Your task to perform on an android device: Search for pizza restaurants on Maps Image 0: 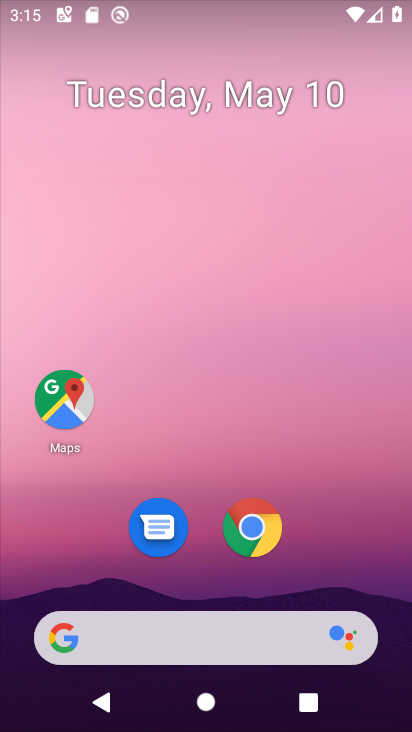
Step 0: click (46, 391)
Your task to perform on an android device: Search for pizza restaurants on Maps Image 1: 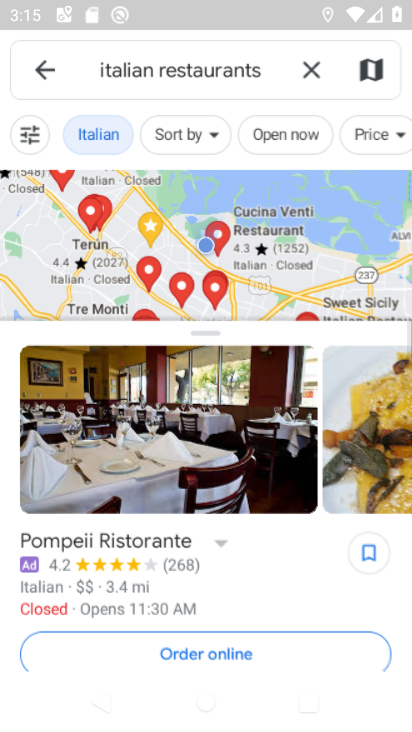
Step 1: click (313, 60)
Your task to perform on an android device: Search for pizza restaurants on Maps Image 2: 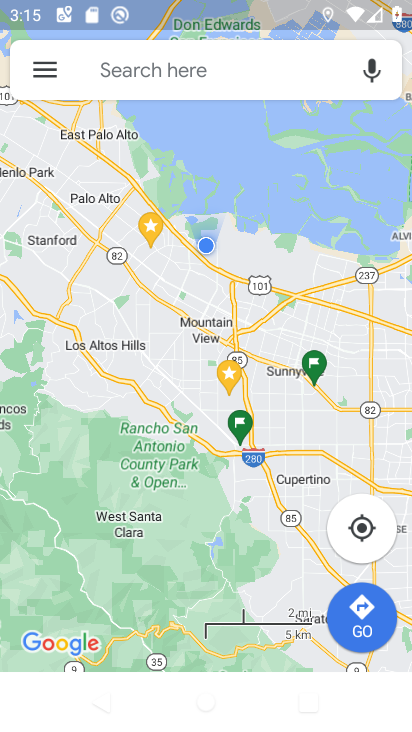
Step 2: click (121, 57)
Your task to perform on an android device: Search for pizza restaurants on Maps Image 3: 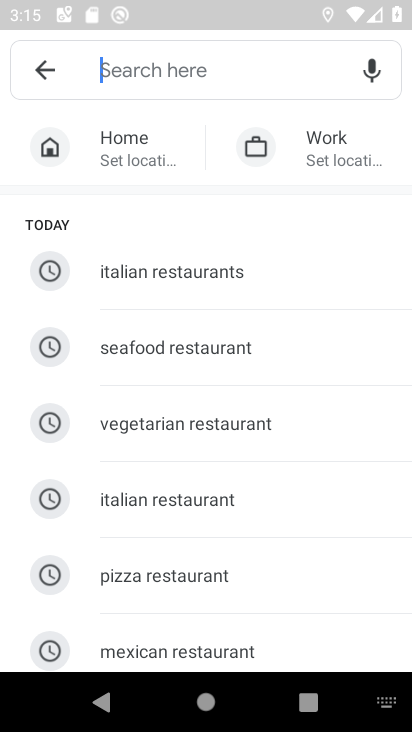
Step 3: type "pizza restaurants"
Your task to perform on an android device: Search for pizza restaurants on Maps Image 4: 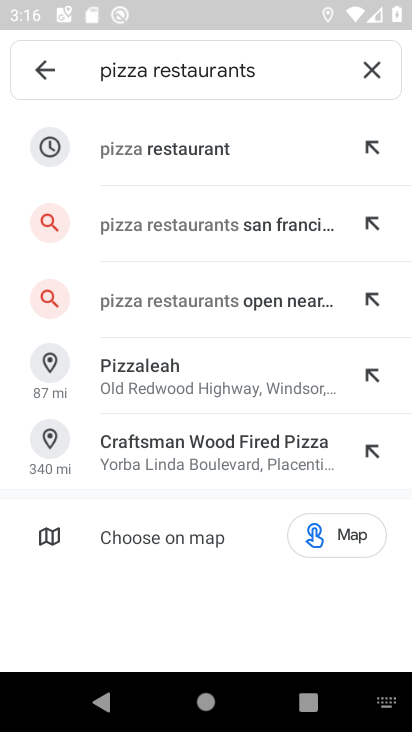
Step 4: click (170, 142)
Your task to perform on an android device: Search for pizza restaurants on Maps Image 5: 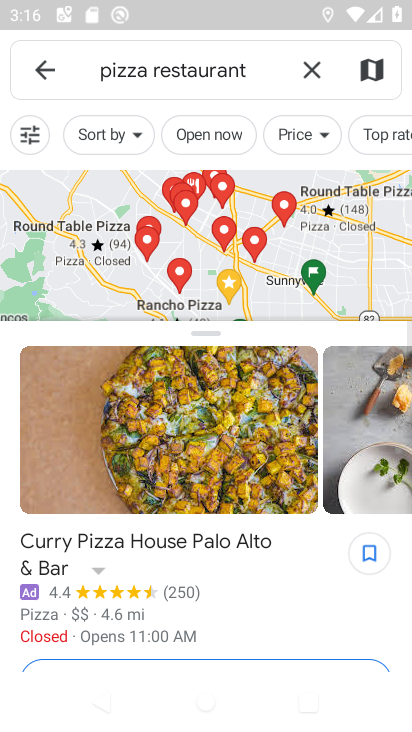
Step 5: task complete